Your task to perform on an android device: change the clock display to digital Image 0: 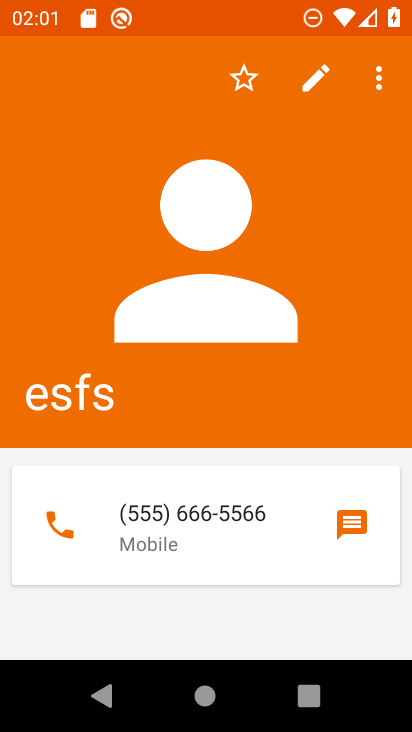
Step 0: press home button
Your task to perform on an android device: change the clock display to digital Image 1: 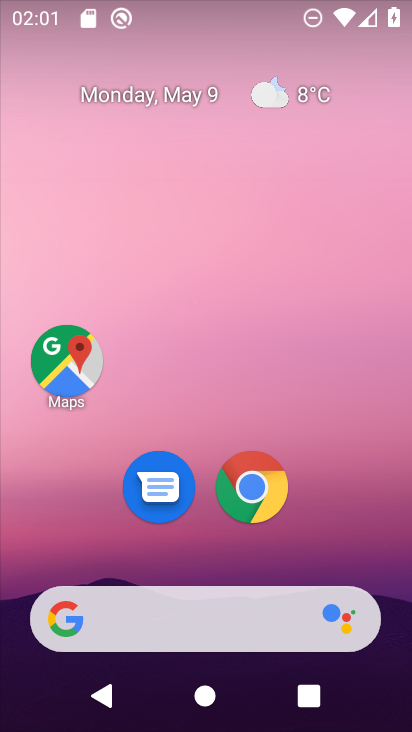
Step 1: drag from (360, 528) to (324, 105)
Your task to perform on an android device: change the clock display to digital Image 2: 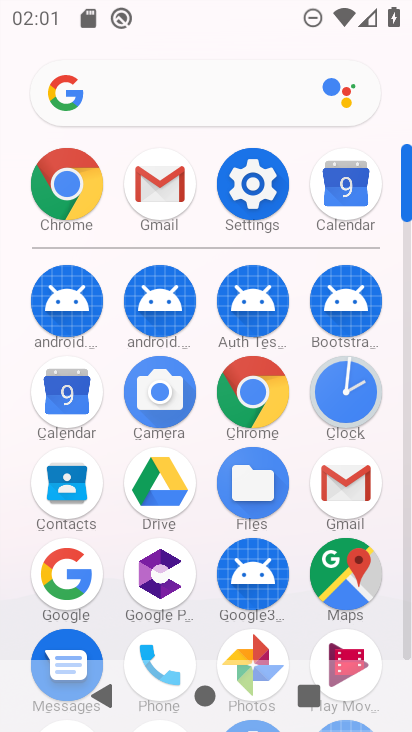
Step 2: click (349, 385)
Your task to perform on an android device: change the clock display to digital Image 3: 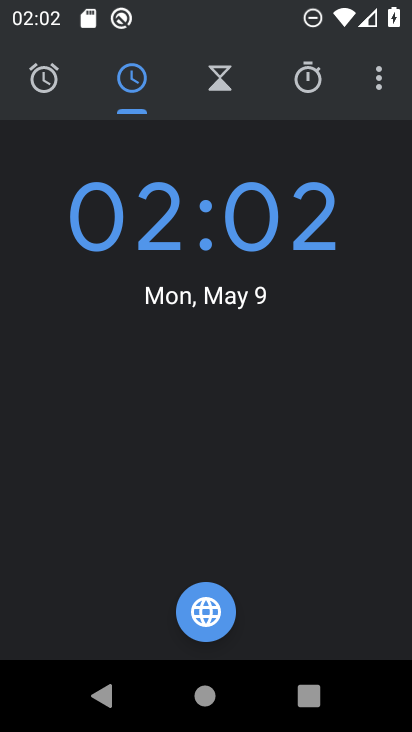
Step 3: click (387, 77)
Your task to perform on an android device: change the clock display to digital Image 4: 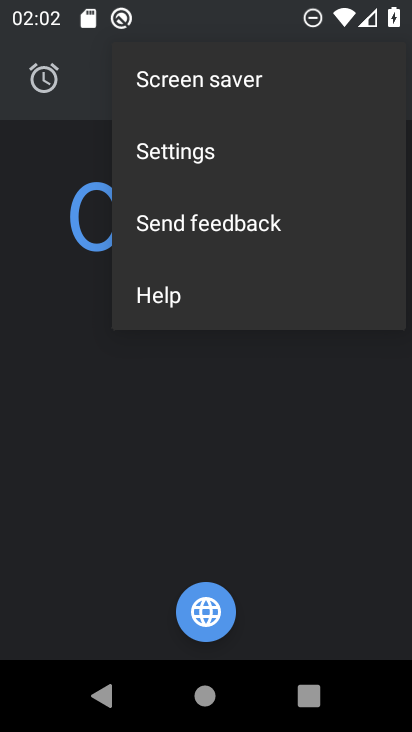
Step 4: click (218, 157)
Your task to perform on an android device: change the clock display to digital Image 5: 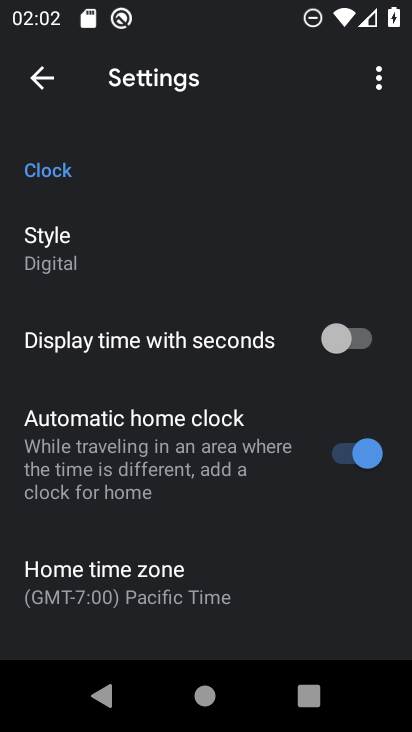
Step 5: task complete